Your task to perform on an android device: stop showing notifications on the lock screen Image 0: 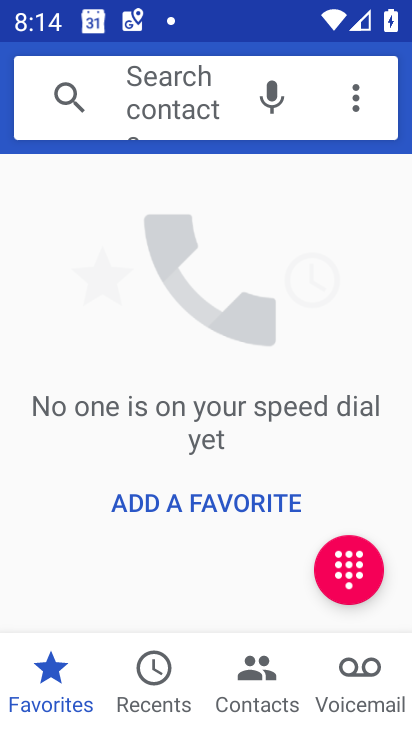
Step 0: press home button
Your task to perform on an android device: stop showing notifications on the lock screen Image 1: 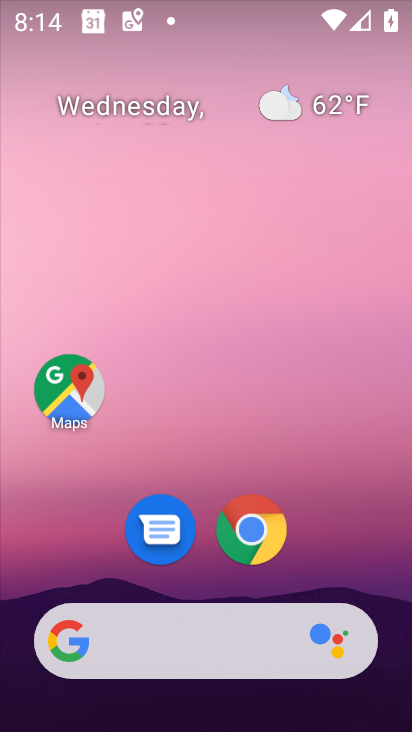
Step 1: drag from (182, 590) to (177, 210)
Your task to perform on an android device: stop showing notifications on the lock screen Image 2: 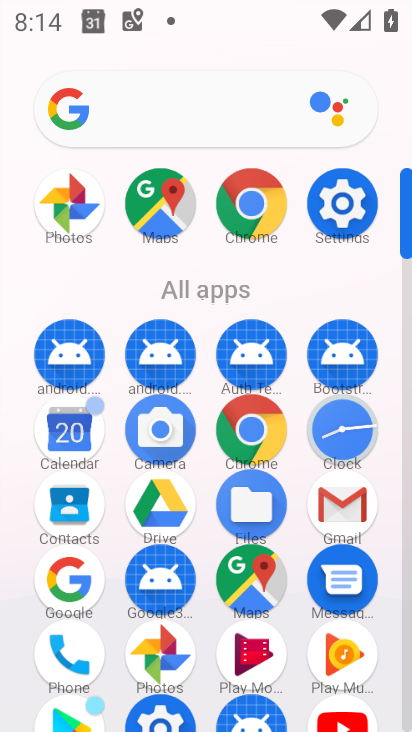
Step 2: click (337, 187)
Your task to perform on an android device: stop showing notifications on the lock screen Image 3: 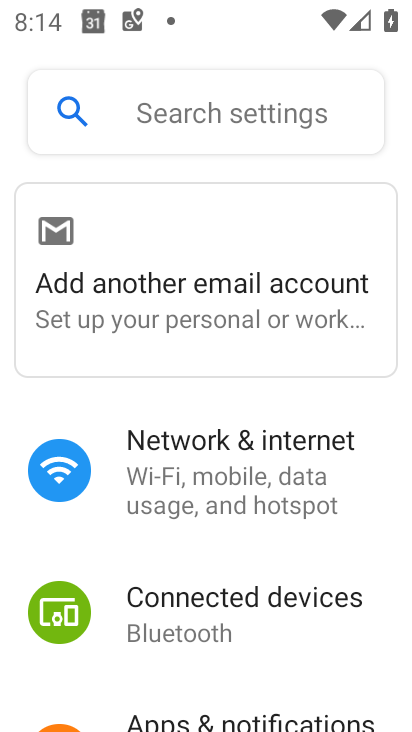
Step 3: click (221, 720)
Your task to perform on an android device: stop showing notifications on the lock screen Image 4: 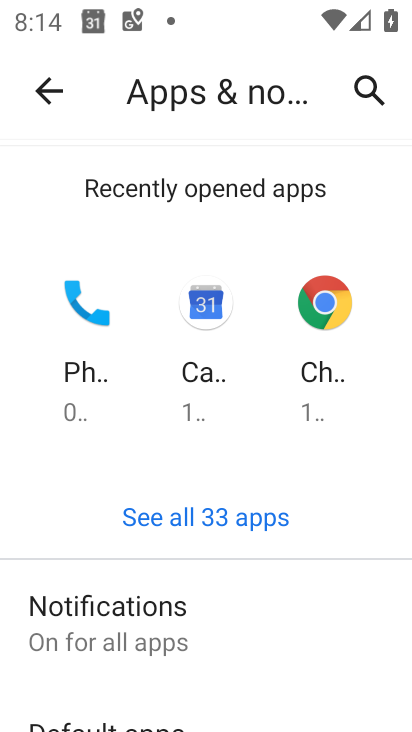
Step 4: click (159, 633)
Your task to perform on an android device: stop showing notifications on the lock screen Image 5: 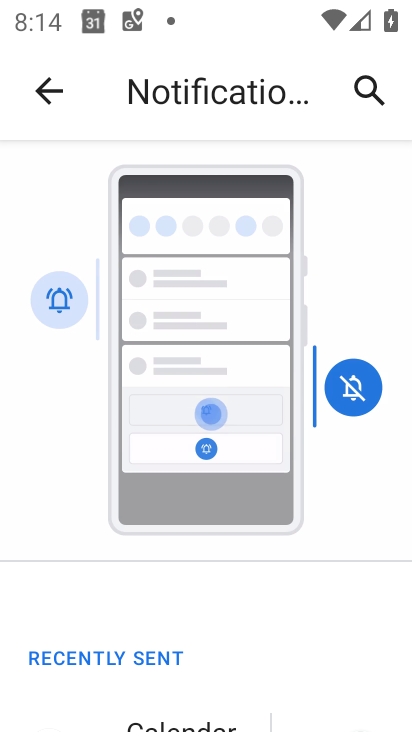
Step 5: drag from (192, 616) to (248, 238)
Your task to perform on an android device: stop showing notifications on the lock screen Image 6: 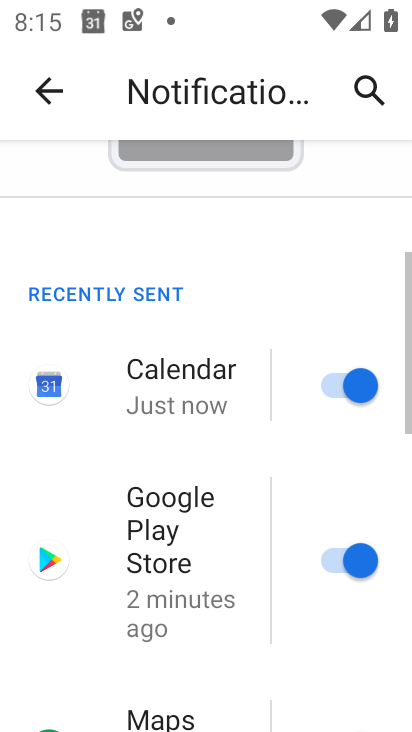
Step 6: drag from (221, 575) to (241, 255)
Your task to perform on an android device: stop showing notifications on the lock screen Image 7: 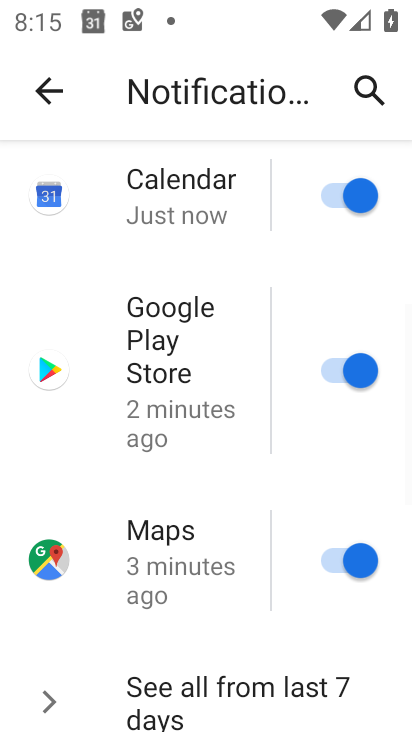
Step 7: drag from (215, 611) to (222, 230)
Your task to perform on an android device: stop showing notifications on the lock screen Image 8: 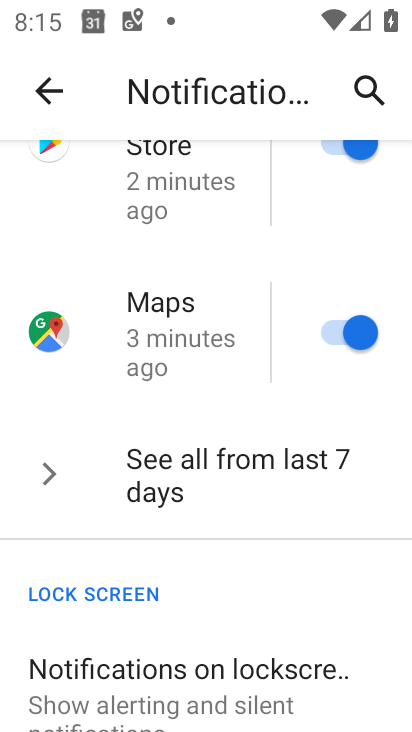
Step 8: click (113, 698)
Your task to perform on an android device: stop showing notifications on the lock screen Image 9: 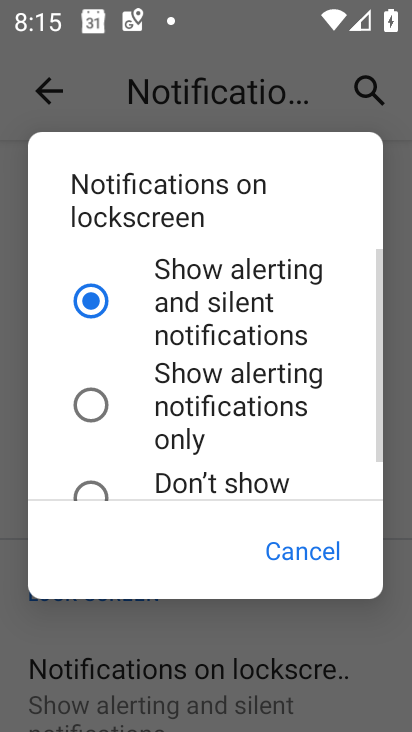
Step 9: click (201, 487)
Your task to perform on an android device: stop showing notifications on the lock screen Image 10: 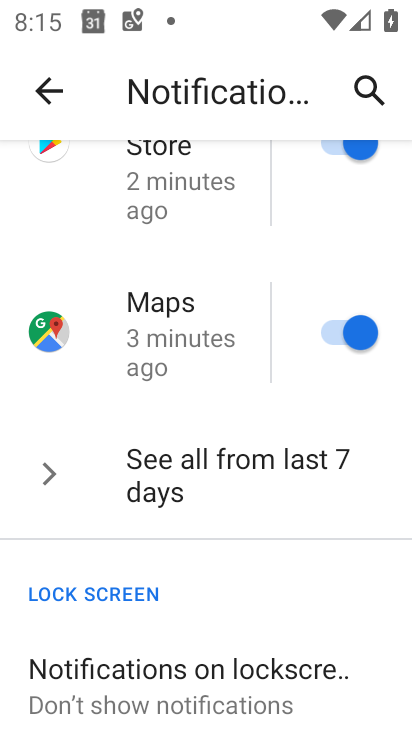
Step 10: task complete